Your task to perform on an android device: Open Amazon Image 0: 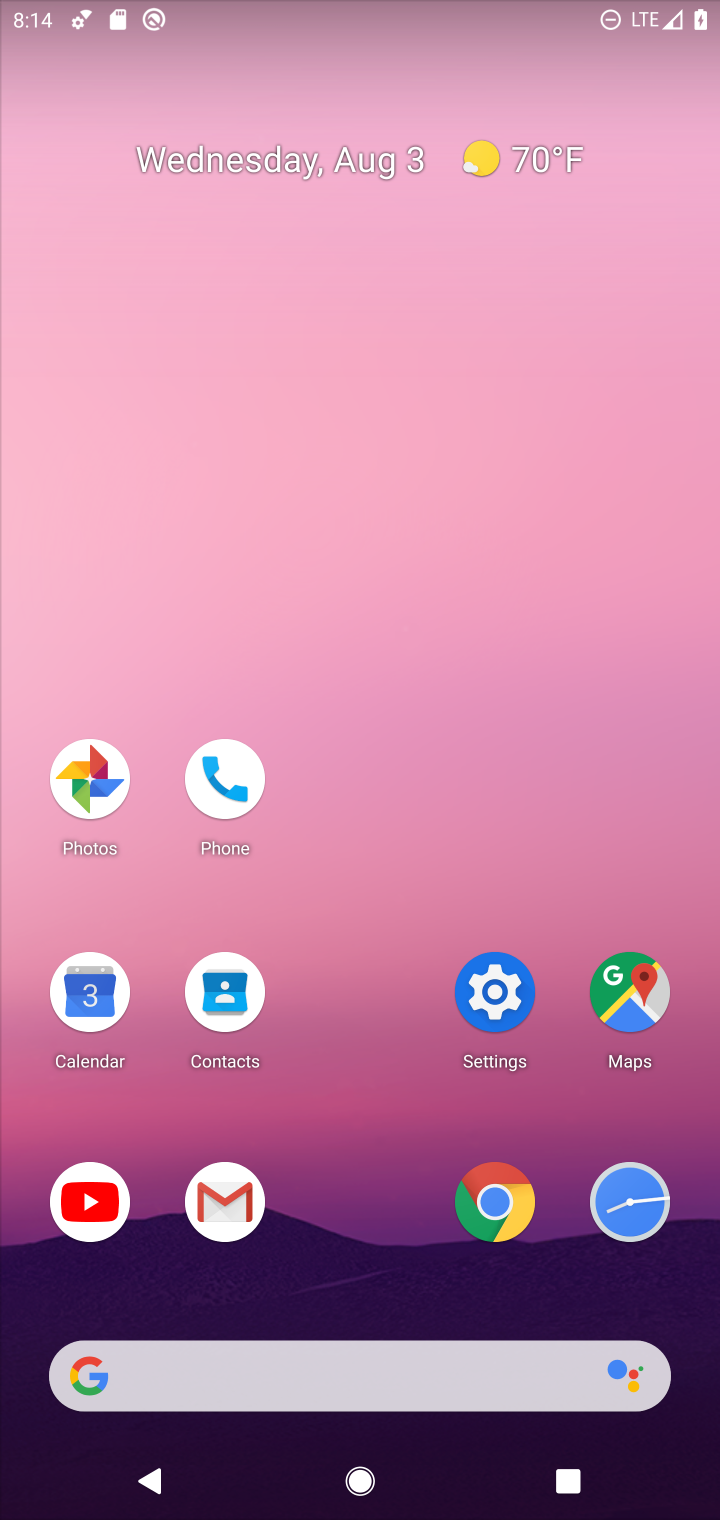
Step 0: click (498, 1202)
Your task to perform on an android device: Open Amazon Image 1: 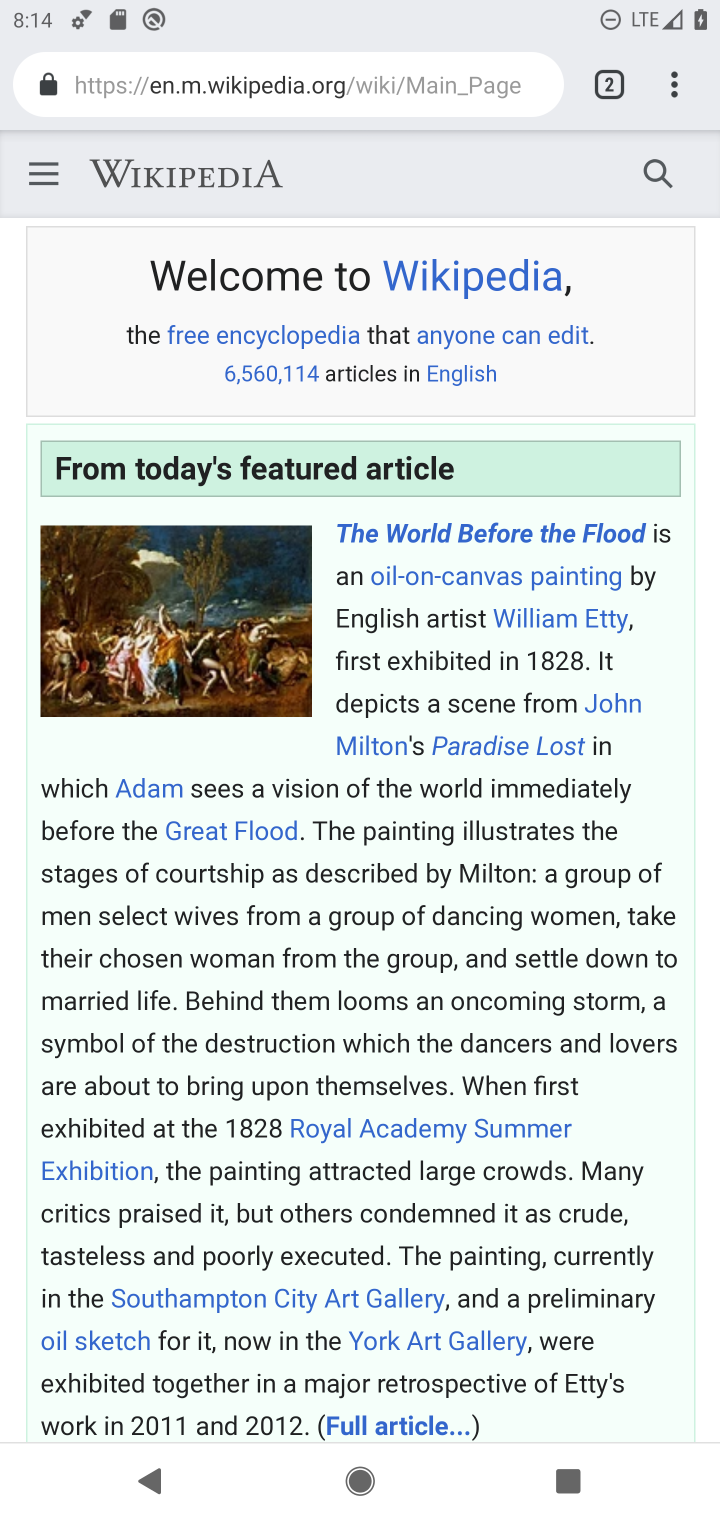
Step 1: click (676, 77)
Your task to perform on an android device: Open Amazon Image 2: 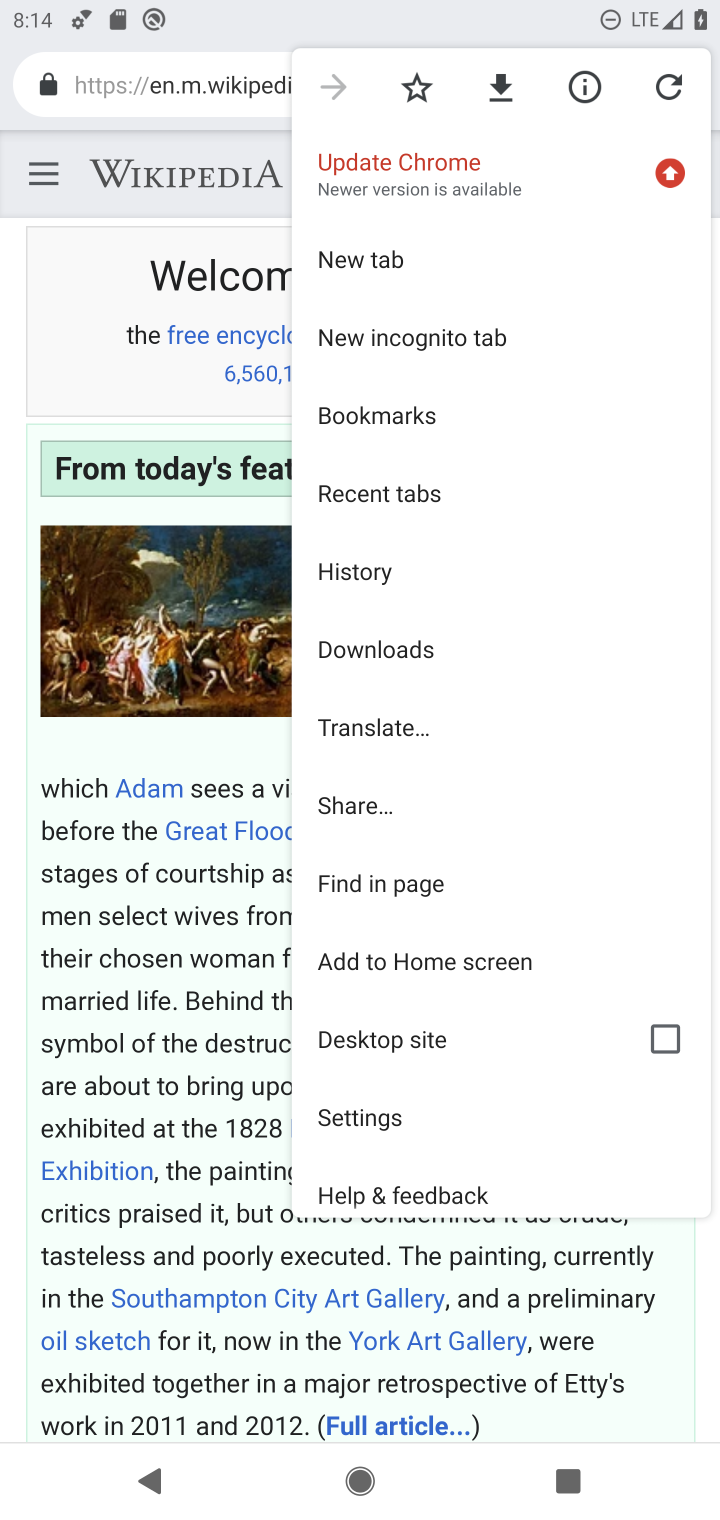
Step 2: click (389, 249)
Your task to perform on an android device: Open Amazon Image 3: 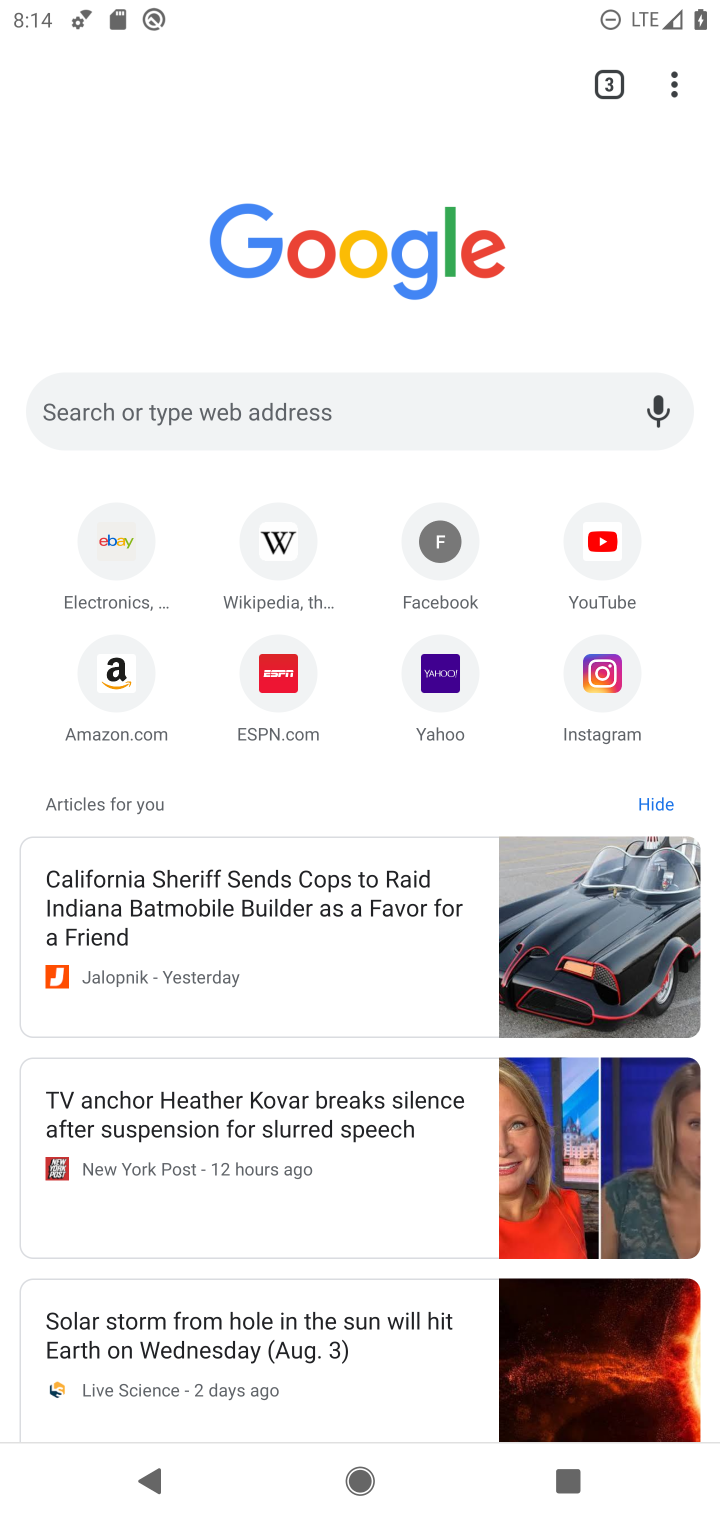
Step 3: click (116, 670)
Your task to perform on an android device: Open Amazon Image 4: 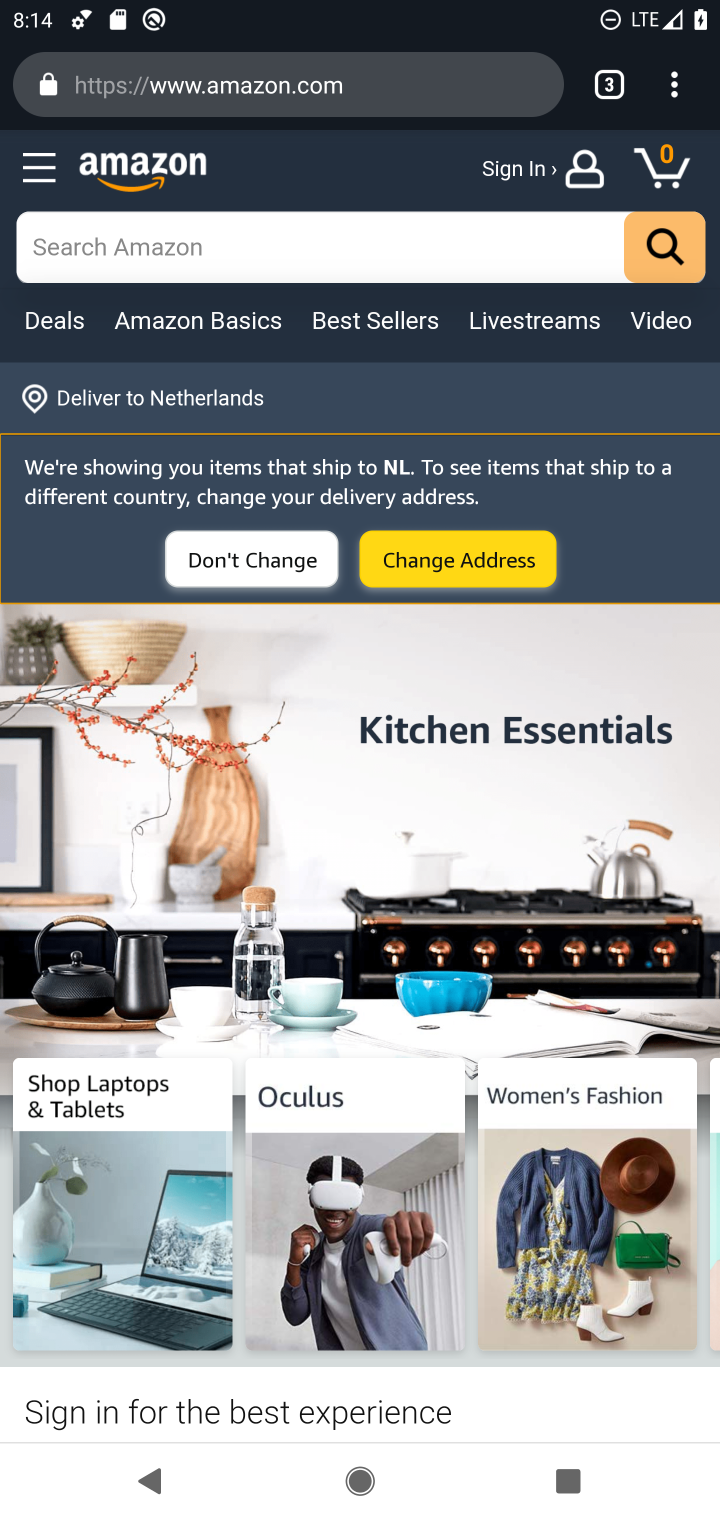
Step 4: task complete